Your task to perform on an android device: uninstall "Calculator" Image 0: 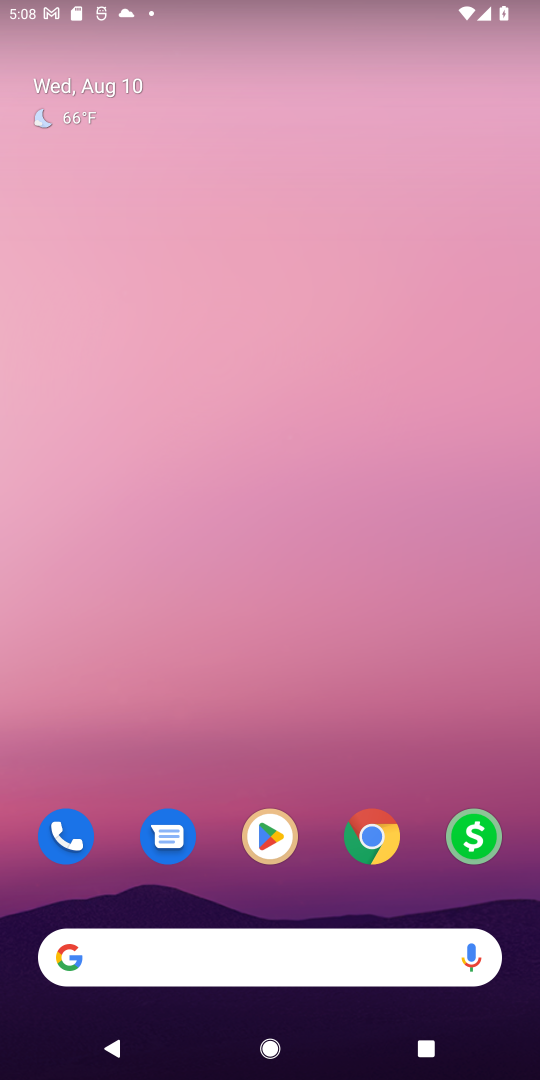
Step 0: drag from (195, 858) to (257, 225)
Your task to perform on an android device: uninstall "Calculator" Image 1: 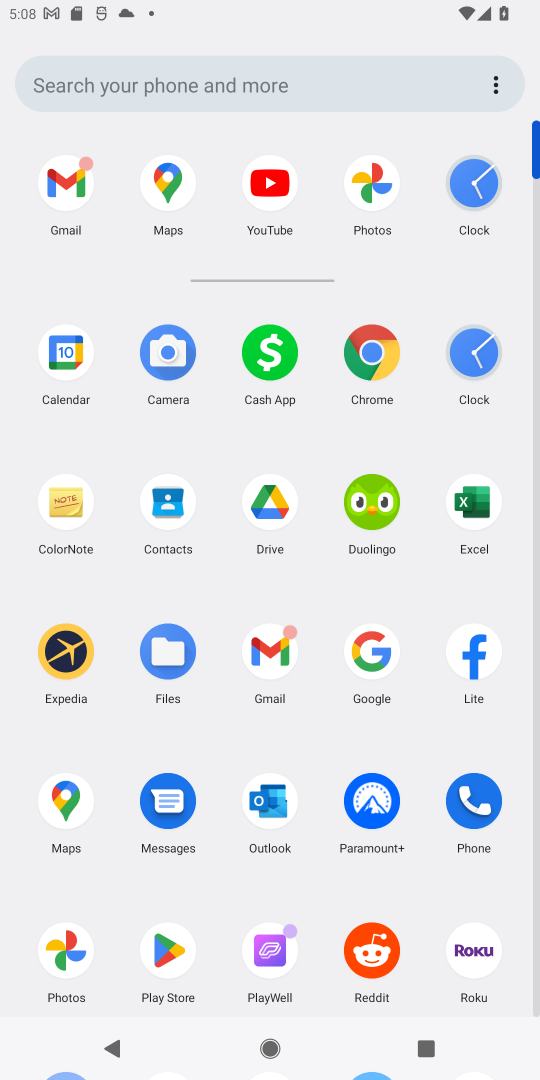
Step 1: click (159, 961)
Your task to perform on an android device: uninstall "Calculator" Image 2: 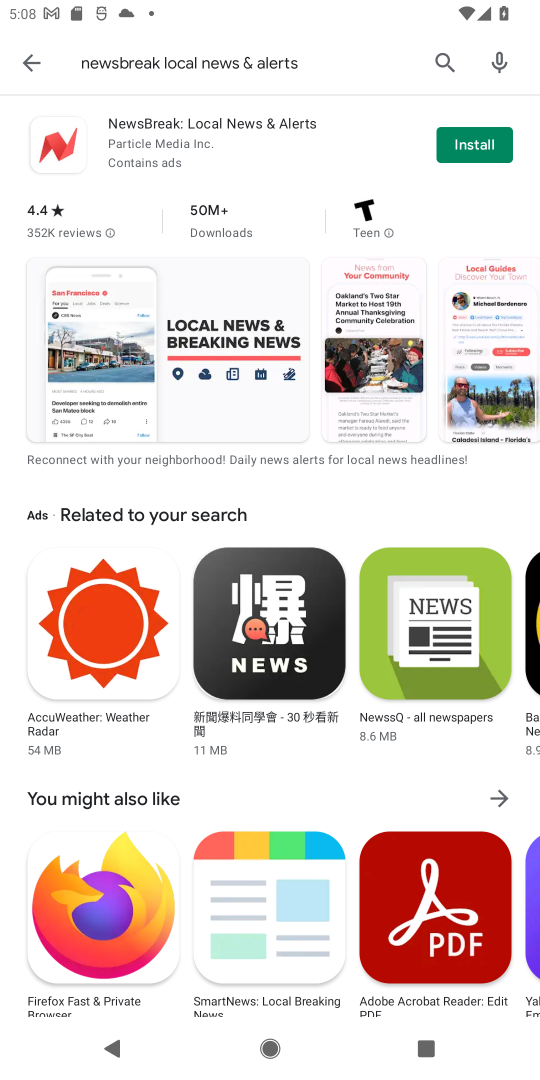
Step 2: click (34, 60)
Your task to perform on an android device: uninstall "Calculator" Image 3: 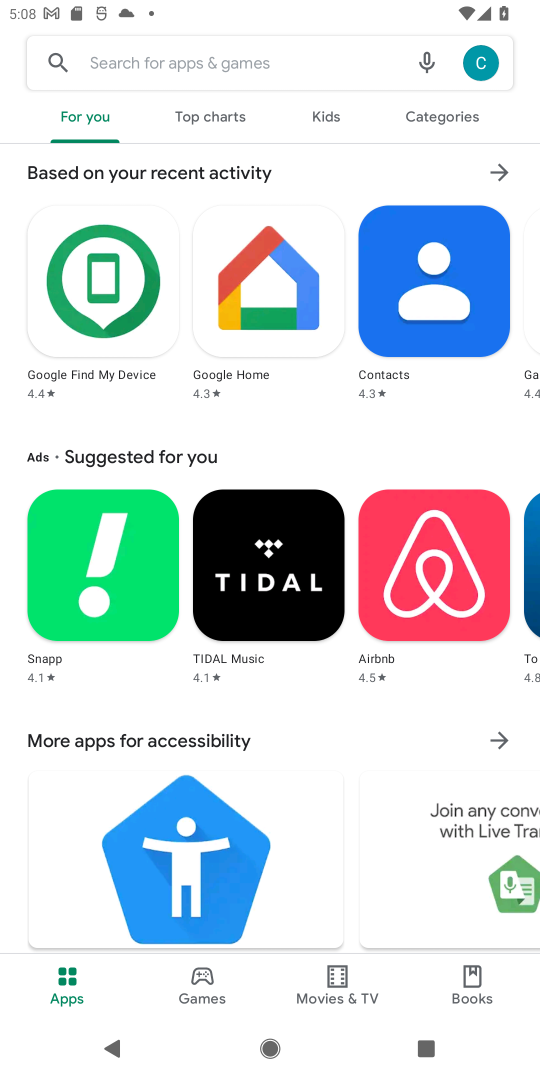
Step 3: click (171, 54)
Your task to perform on an android device: uninstall "Calculator" Image 4: 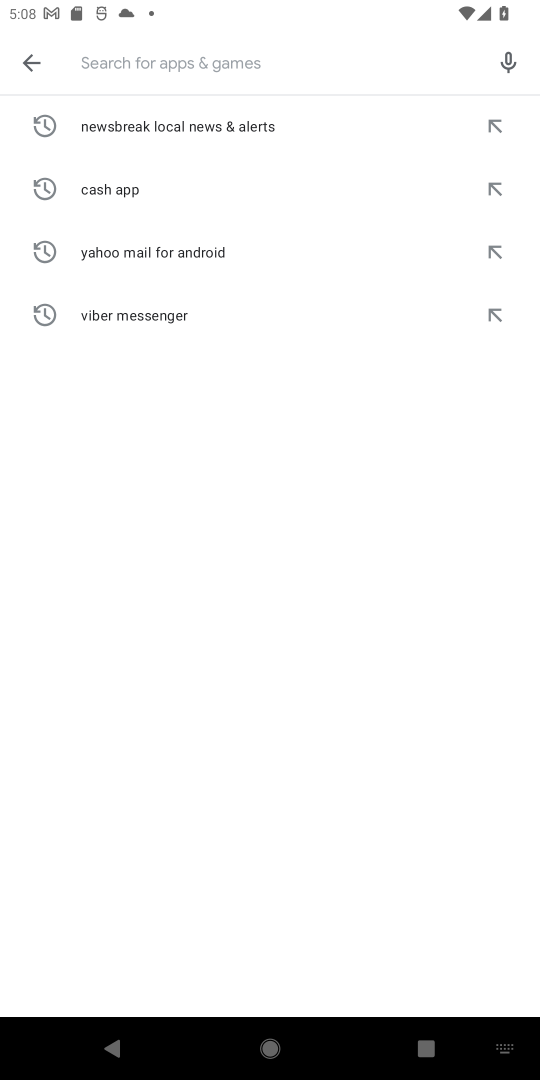
Step 4: type "Calculator "
Your task to perform on an android device: uninstall "Calculator" Image 5: 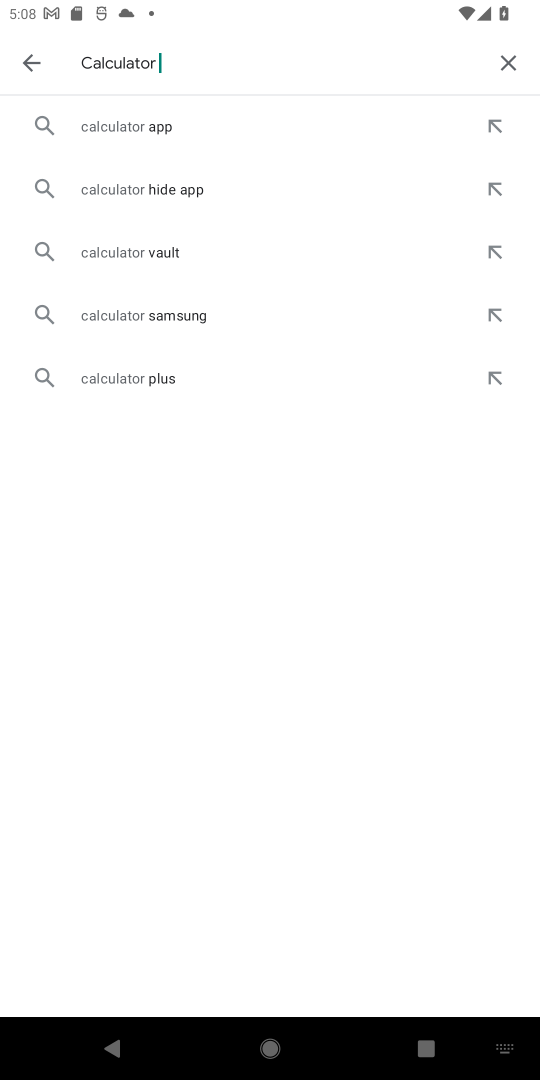
Step 5: click (112, 139)
Your task to perform on an android device: uninstall "Calculator" Image 6: 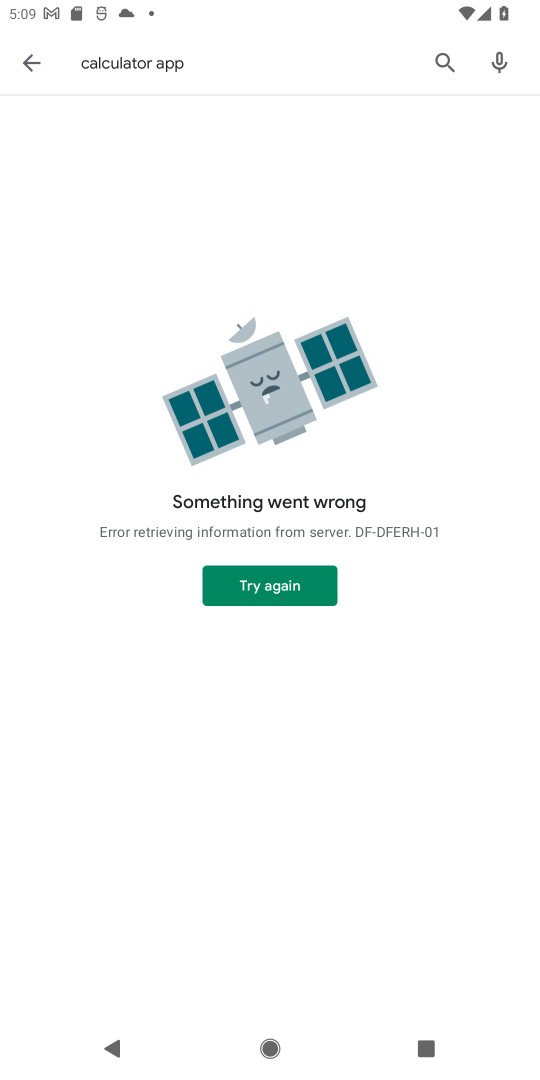
Step 6: click (264, 595)
Your task to perform on an android device: uninstall "Calculator" Image 7: 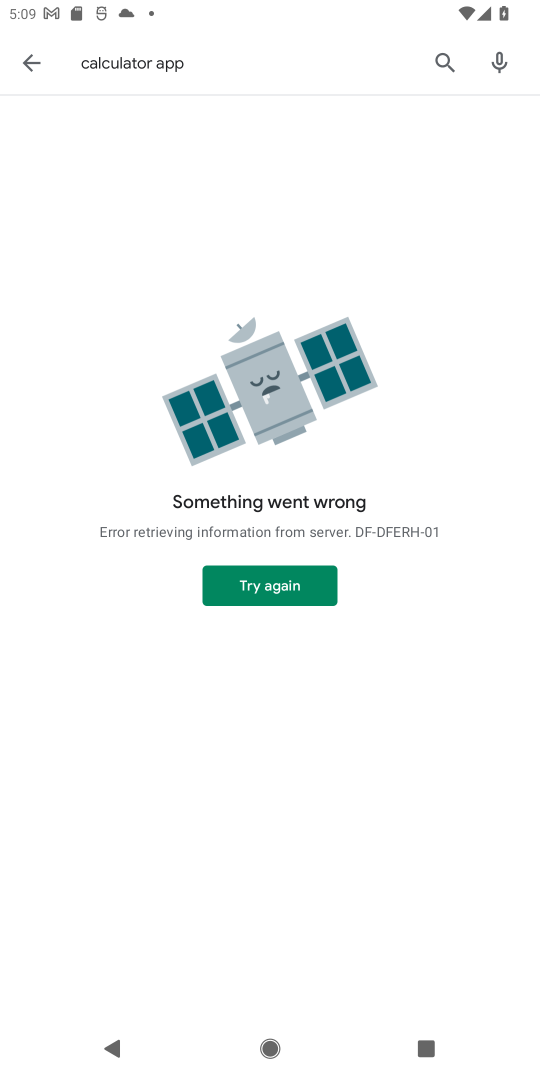
Step 7: click (273, 595)
Your task to perform on an android device: uninstall "Calculator" Image 8: 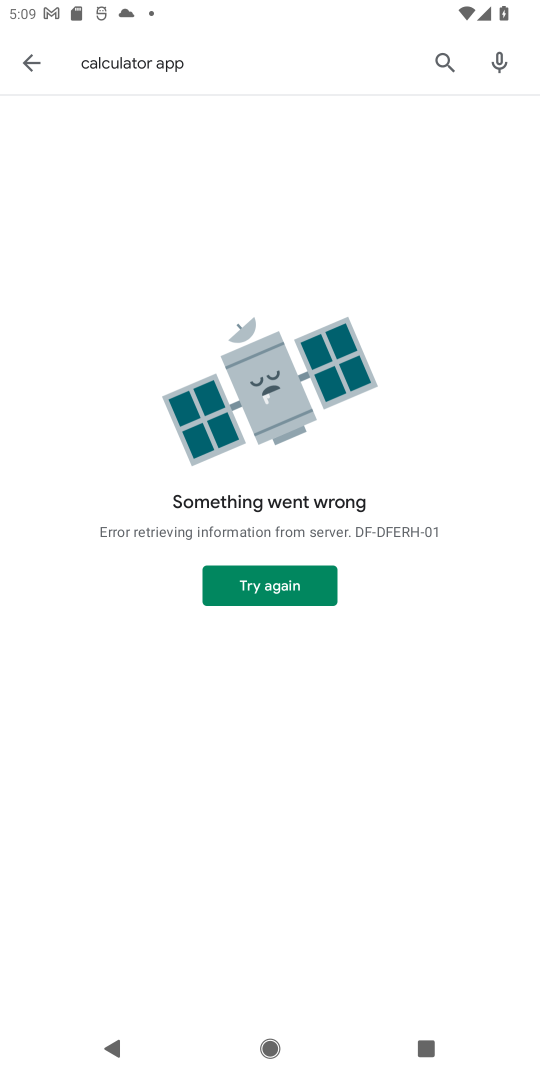
Step 8: task complete